Your task to perform on an android device: set the stopwatch Image 0: 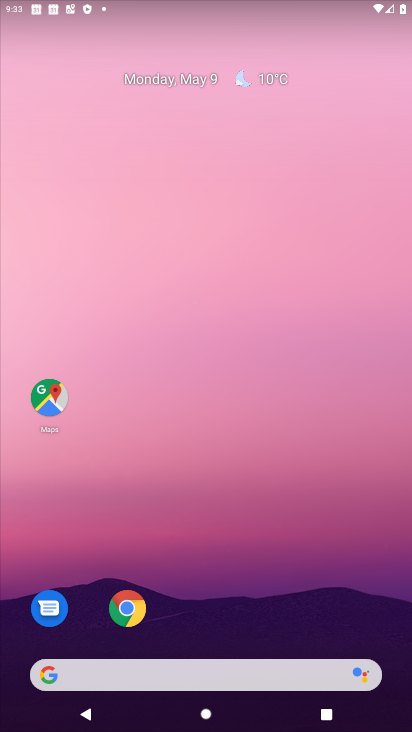
Step 0: drag from (328, 549) to (301, 101)
Your task to perform on an android device: set the stopwatch Image 1: 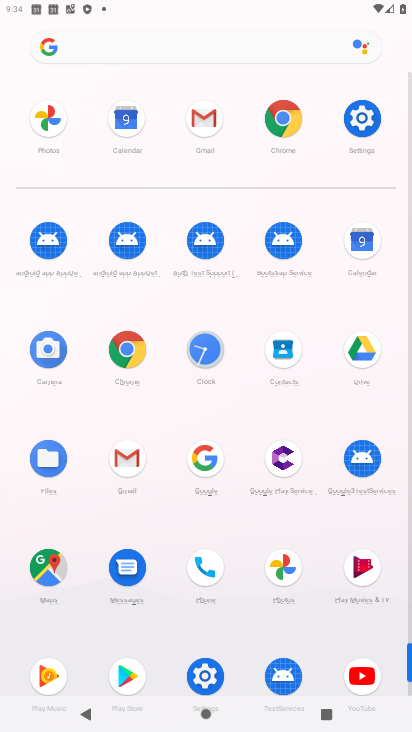
Step 1: click (209, 365)
Your task to perform on an android device: set the stopwatch Image 2: 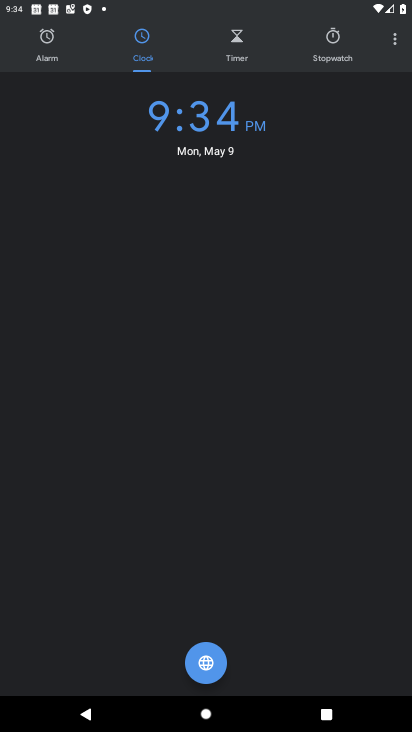
Step 2: click (329, 52)
Your task to perform on an android device: set the stopwatch Image 3: 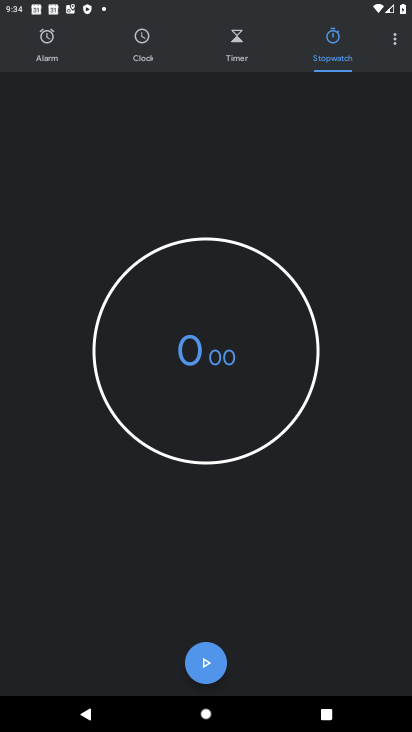
Step 3: click (199, 662)
Your task to perform on an android device: set the stopwatch Image 4: 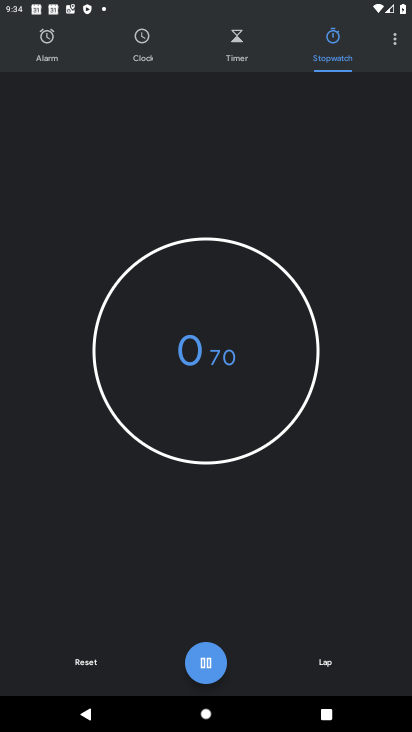
Step 4: task complete